Your task to perform on an android device: clear all cookies in the chrome app Image 0: 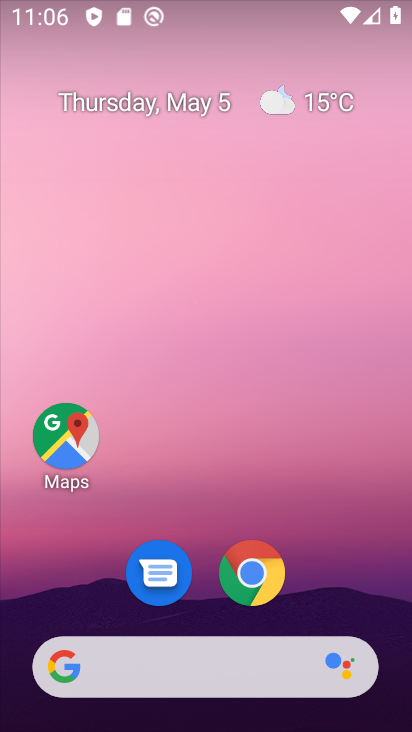
Step 0: click (265, 588)
Your task to perform on an android device: clear all cookies in the chrome app Image 1: 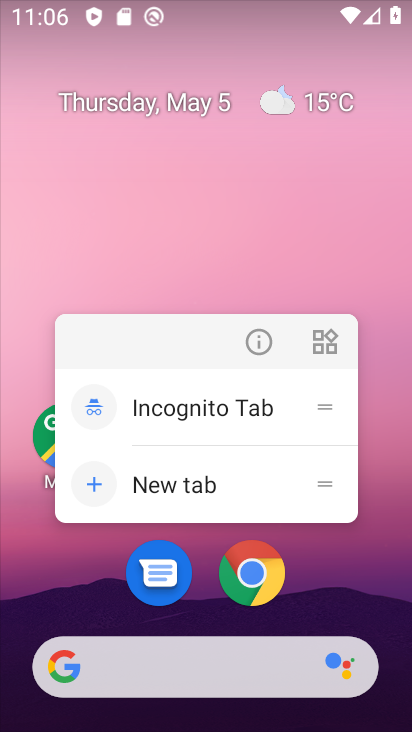
Step 1: click (253, 570)
Your task to perform on an android device: clear all cookies in the chrome app Image 2: 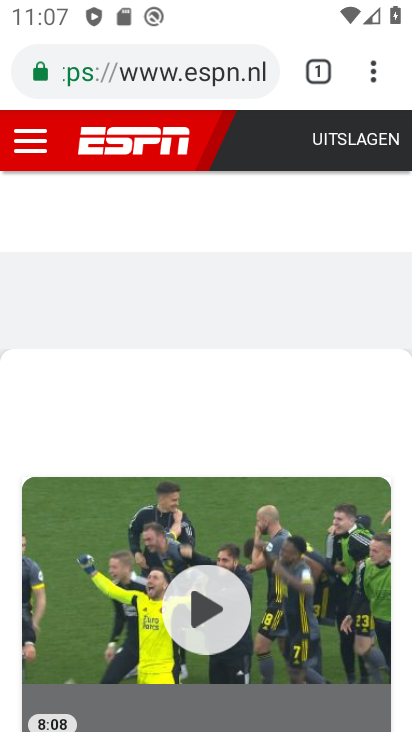
Step 2: drag from (374, 75) to (233, 563)
Your task to perform on an android device: clear all cookies in the chrome app Image 3: 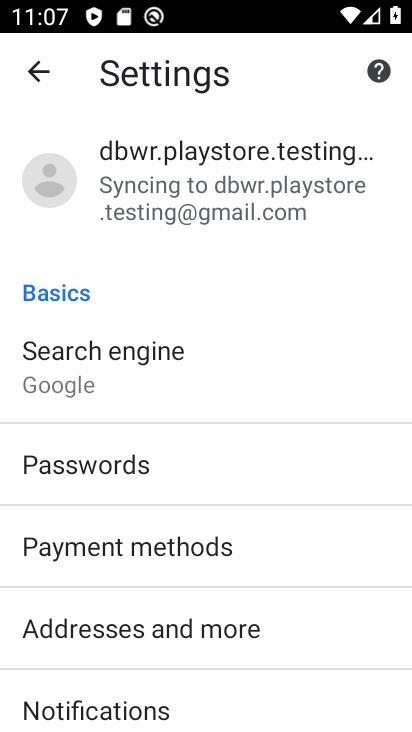
Step 3: drag from (148, 684) to (248, 258)
Your task to perform on an android device: clear all cookies in the chrome app Image 4: 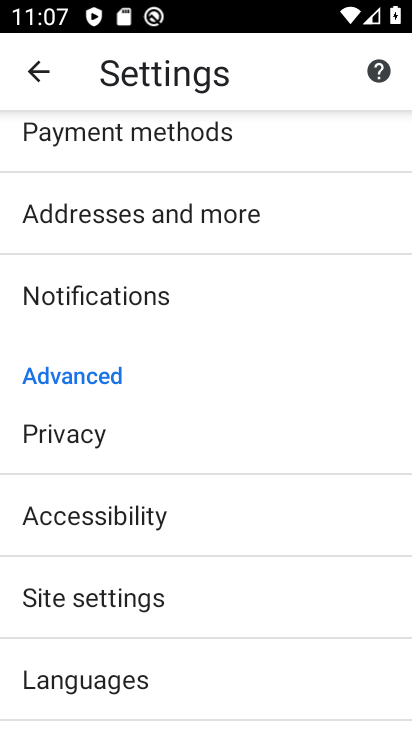
Step 4: click (105, 437)
Your task to perform on an android device: clear all cookies in the chrome app Image 5: 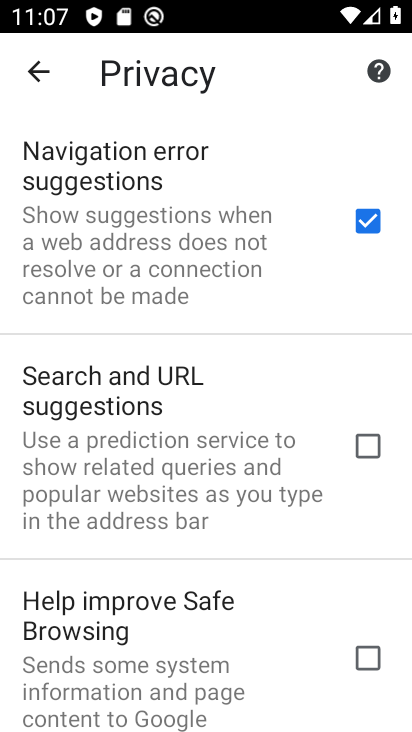
Step 5: drag from (170, 698) to (261, 127)
Your task to perform on an android device: clear all cookies in the chrome app Image 6: 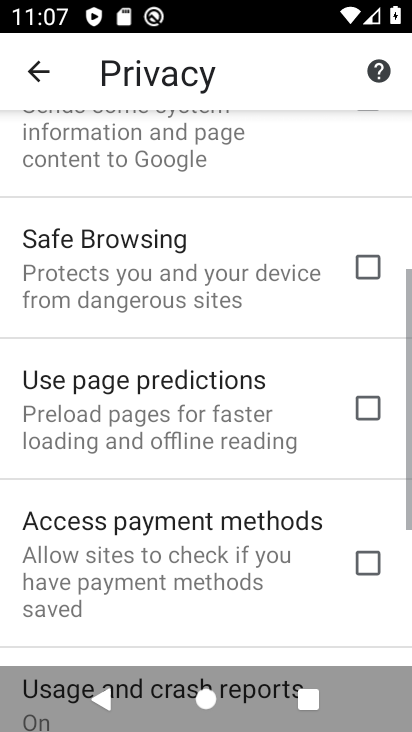
Step 6: drag from (171, 616) to (273, 96)
Your task to perform on an android device: clear all cookies in the chrome app Image 7: 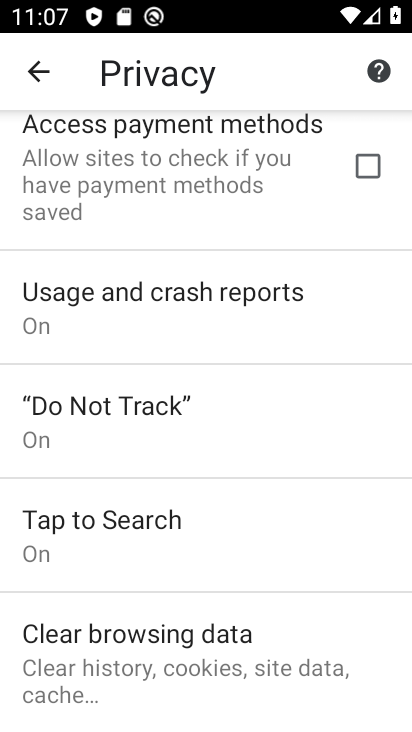
Step 7: drag from (161, 628) to (191, 485)
Your task to perform on an android device: clear all cookies in the chrome app Image 8: 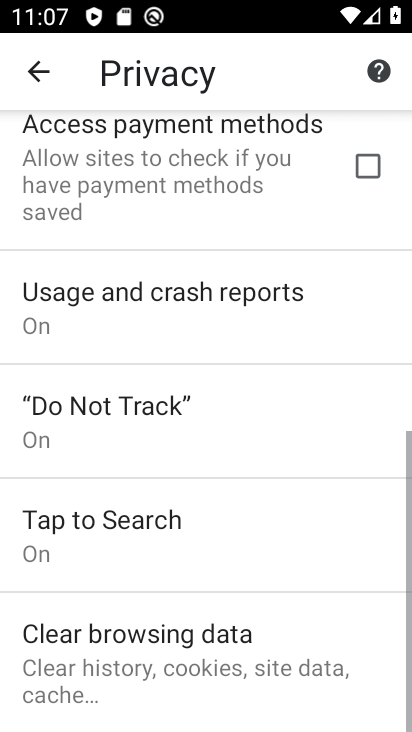
Step 8: click (162, 648)
Your task to perform on an android device: clear all cookies in the chrome app Image 9: 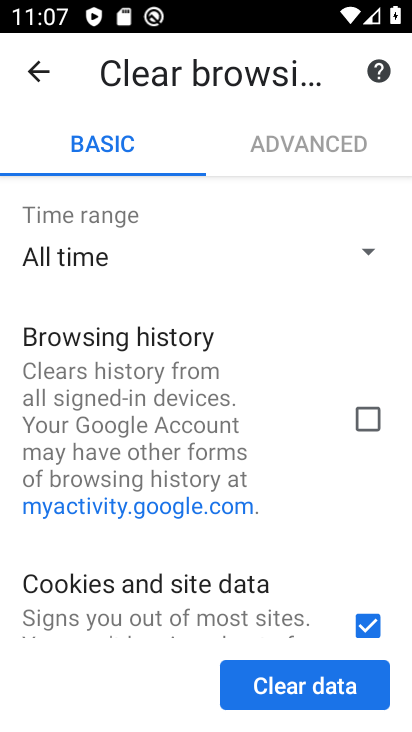
Step 9: click (320, 680)
Your task to perform on an android device: clear all cookies in the chrome app Image 10: 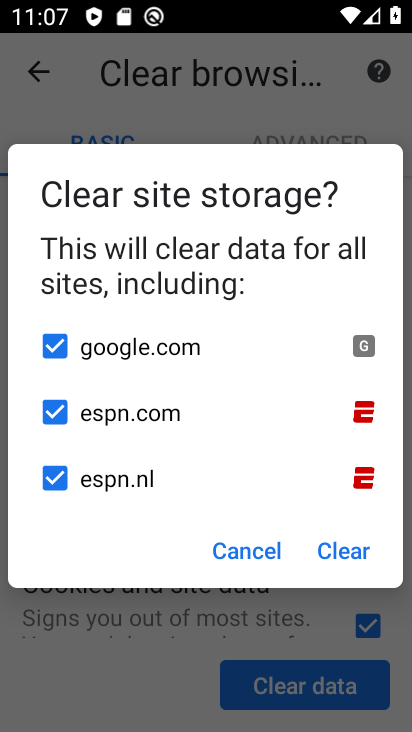
Step 10: click (327, 554)
Your task to perform on an android device: clear all cookies in the chrome app Image 11: 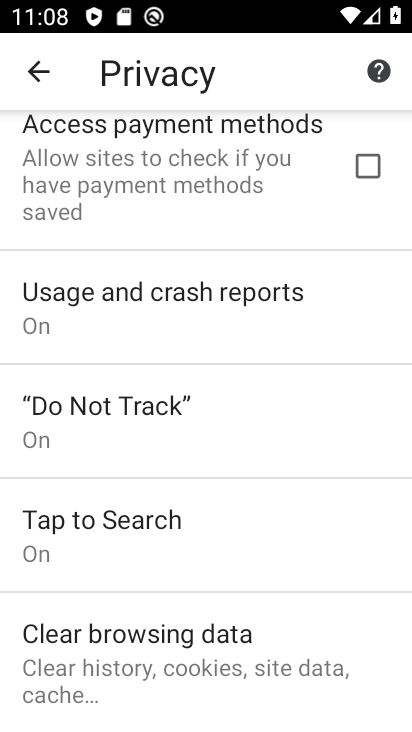
Step 11: task complete